Your task to perform on an android device: empty trash in the gmail app Image 0: 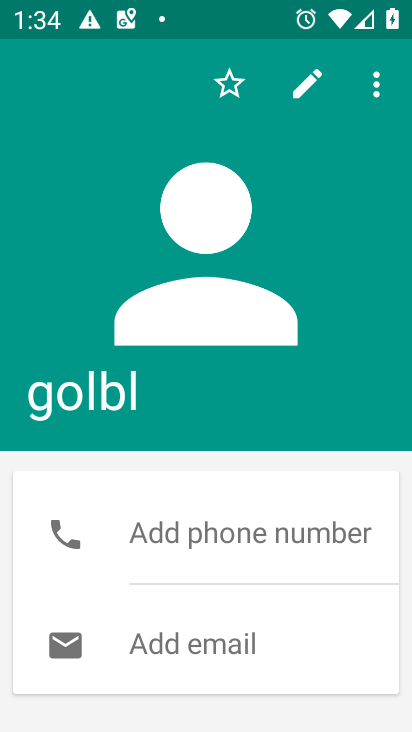
Step 0: press home button
Your task to perform on an android device: empty trash in the gmail app Image 1: 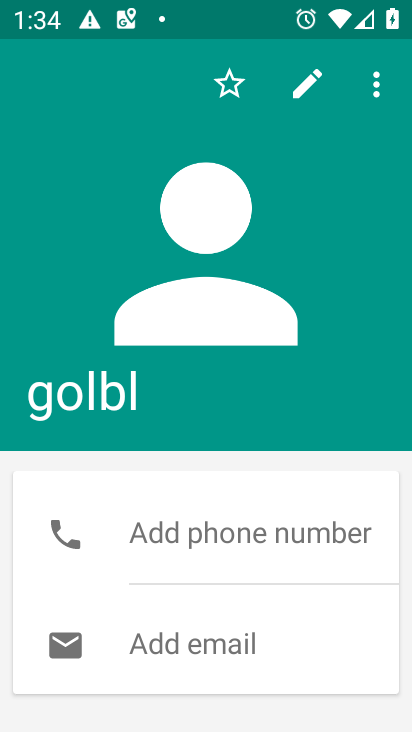
Step 1: press home button
Your task to perform on an android device: empty trash in the gmail app Image 2: 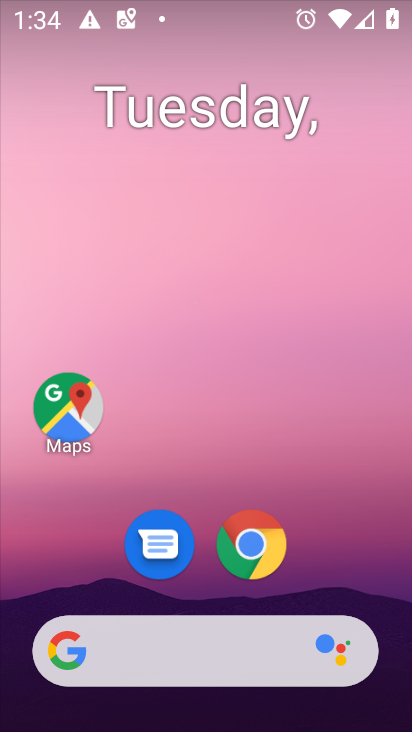
Step 2: drag from (299, 500) to (304, 11)
Your task to perform on an android device: empty trash in the gmail app Image 3: 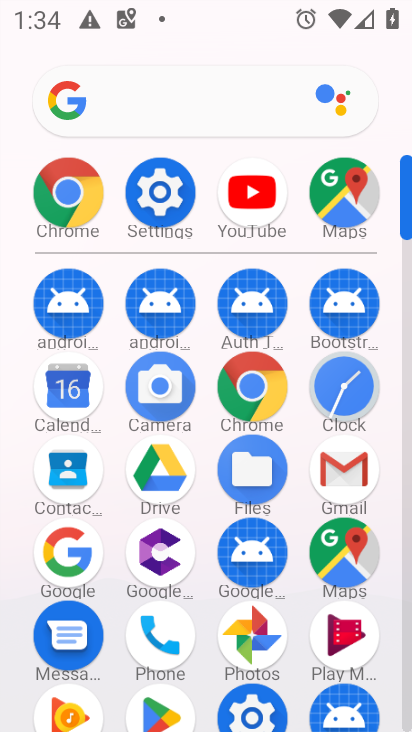
Step 3: click (334, 470)
Your task to perform on an android device: empty trash in the gmail app Image 4: 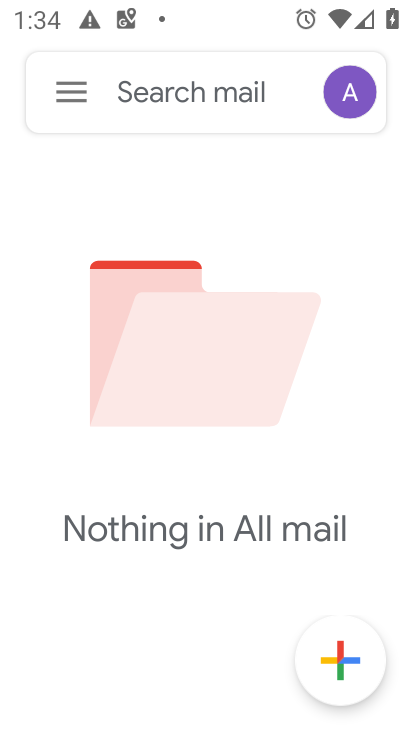
Step 4: click (76, 81)
Your task to perform on an android device: empty trash in the gmail app Image 5: 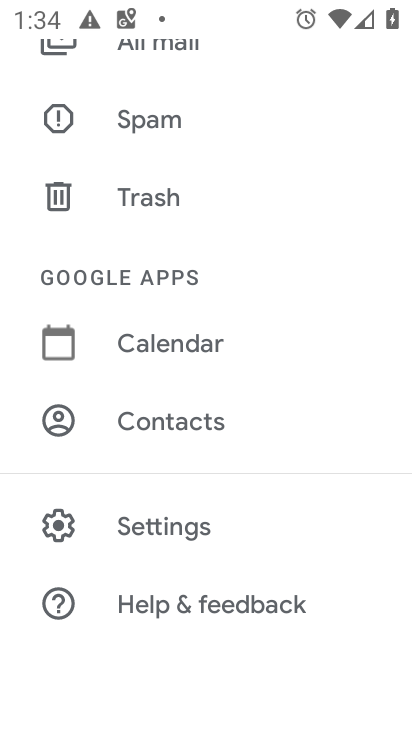
Step 5: click (149, 191)
Your task to perform on an android device: empty trash in the gmail app Image 6: 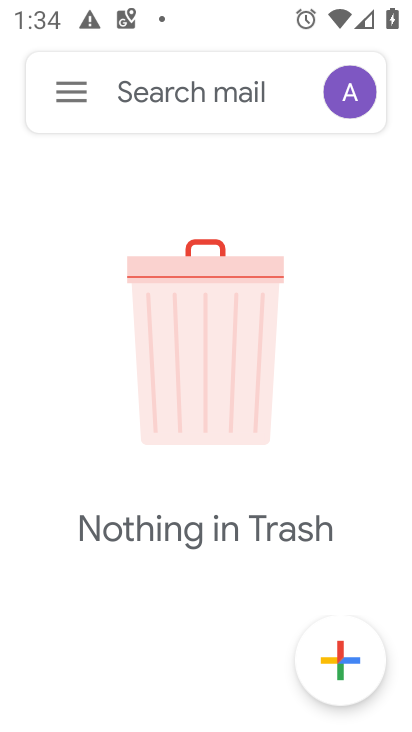
Step 6: task complete